Your task to perform on an android device: Show me the alarms in the clock app Image 0: 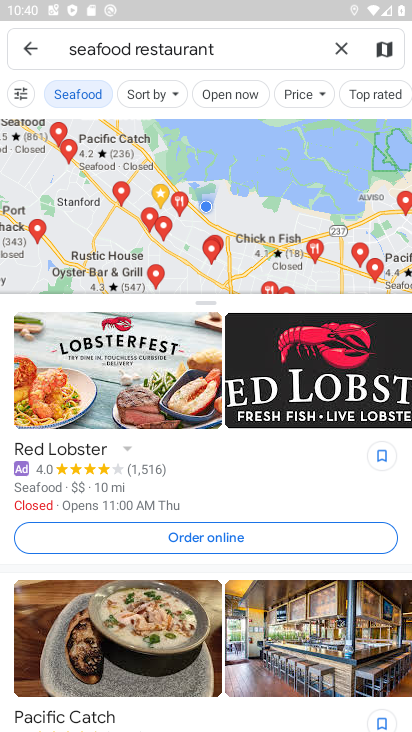
Step 0: press home button
Your task to perform on an android device: Show me the alarms in the clock app Image 1: 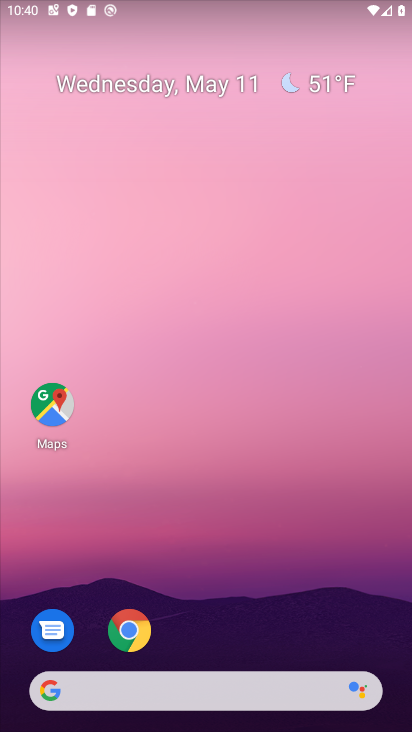
Step 1: drag from (217, 716) to (210, 205)
Your task to perform on an android device: Show me the alarms in the clock app Image 2: 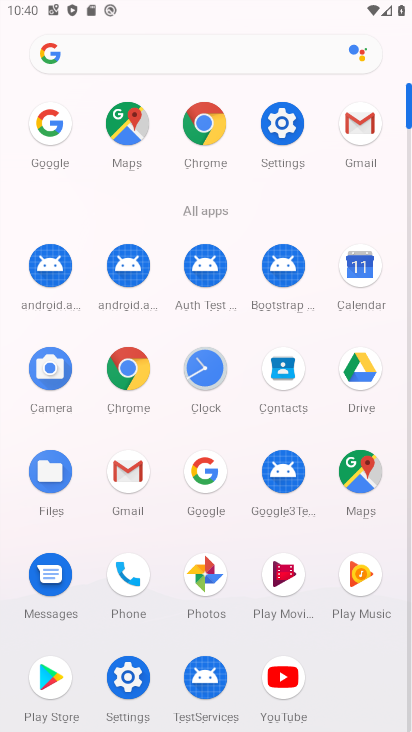
Step 2: click (211, 369)
Your task to perform on an android device: Show me the alarms in the clock app Image 3: 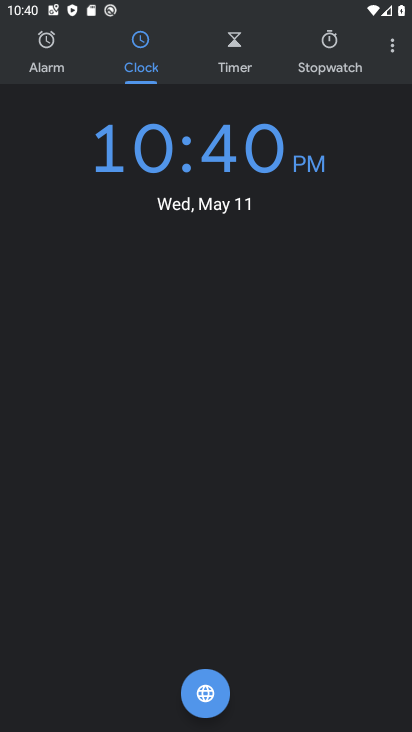
Step 3: click (52, 54)
Your task to perform on an android device: Show me the alarms in the clock app Image 4: 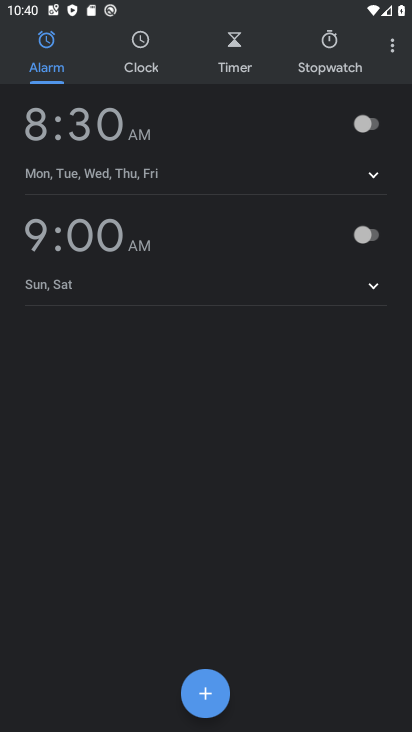
Step 4: task complete